Your task to perform on an android device: Open the calendar app, open the side menu, and click the "Day" option Image 0: 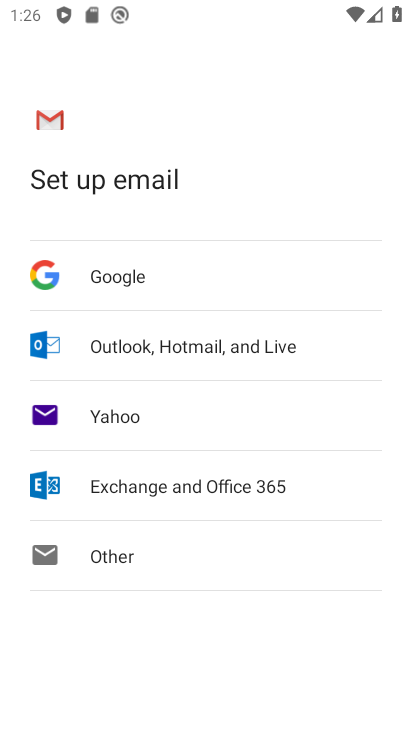
Step 0: press home button
Your task to perform on an android device: Open the calendar app, open the side menu, and click the "Day" option Image 1: 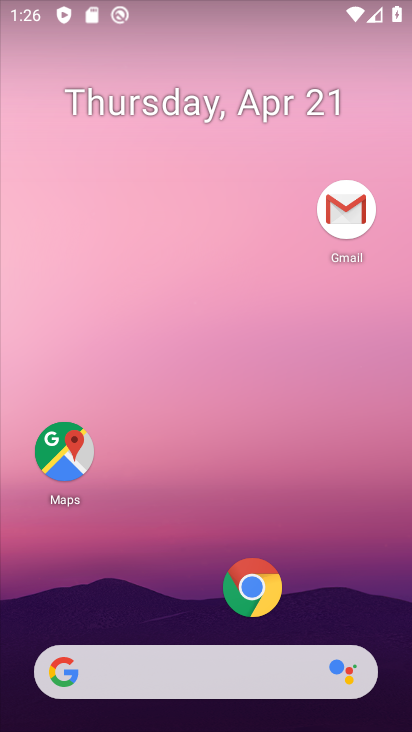
Step 1: drag from (172, 571) to (164, 167)
Your task to perform on an android device: Open the calendar app, open the side menu, and click the "Day" option Image 2: 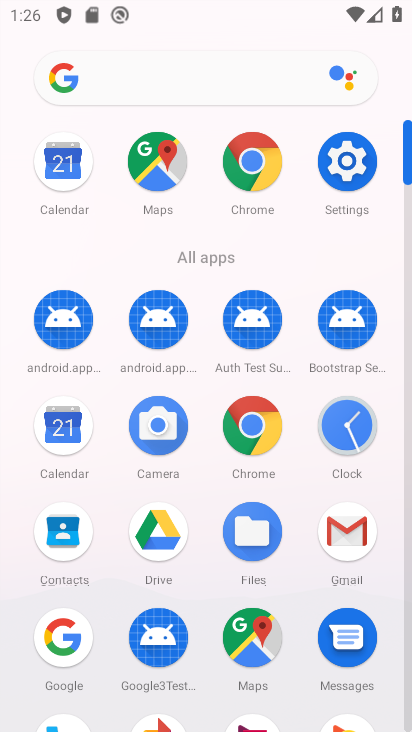
Step 2: click (78, 440)
Your task to perform on an android device: Open the calendar app, open the side menu, and click the "Day" option Image 3: 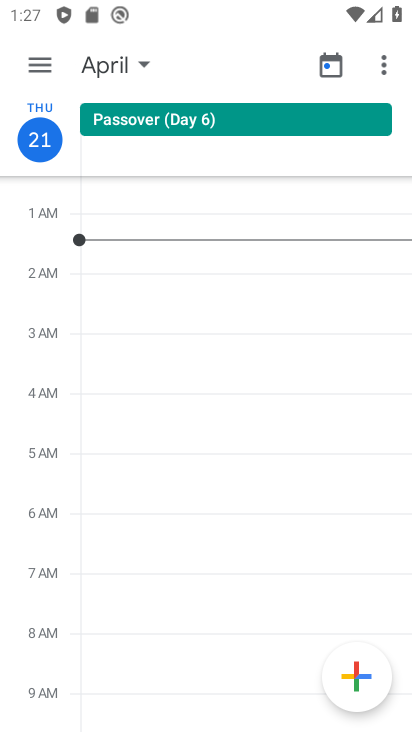
Step 3: click (48, 66)
Your task to perform on an android device: Open the calendar app, open the side menu, and click the "Day" option Image 4: 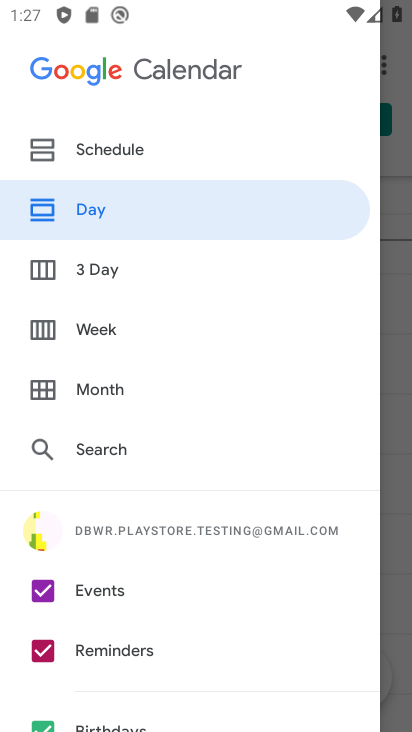
Step 4: click (100, 208)
Your task to perform on an android device: Open the calendar app, open the side menu, and click the "Day" option Image 5: 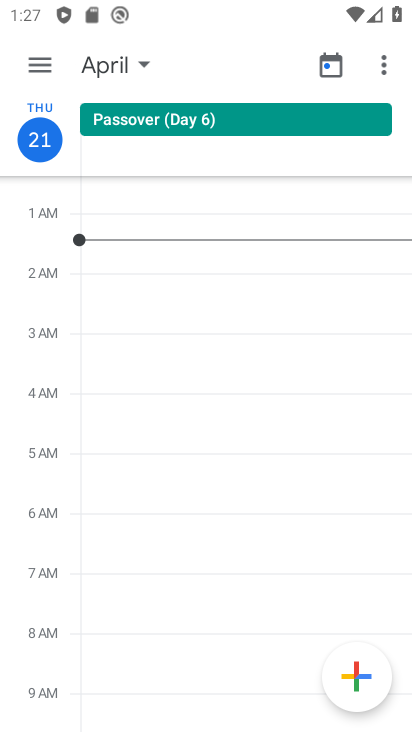
Step 5: task complete